Your task to perform on an android device: Go to Amazon Image 0: 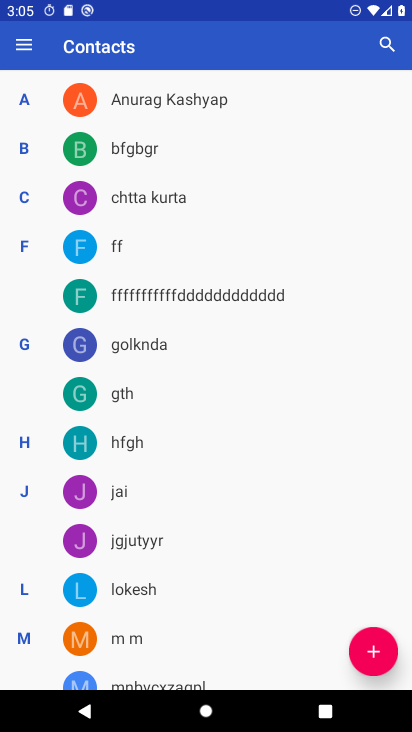
Step 0: press home button
Your task to perform on an android device: Go to Amazon Image 1: 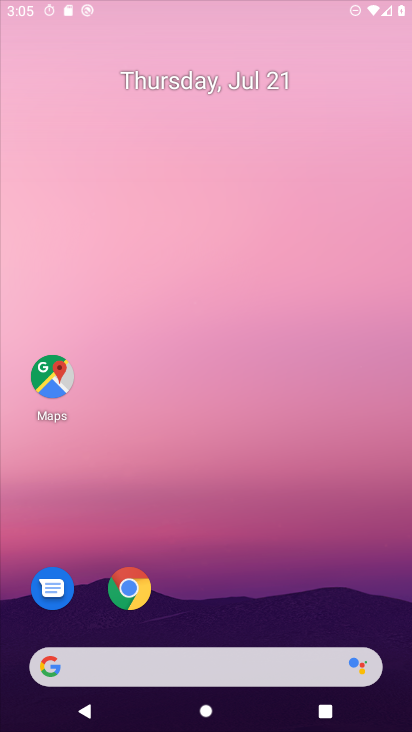
Step 1: drag from (198, 681) to (410, 257)
Your task to perform on an android device: Go to Amazon Image 2: 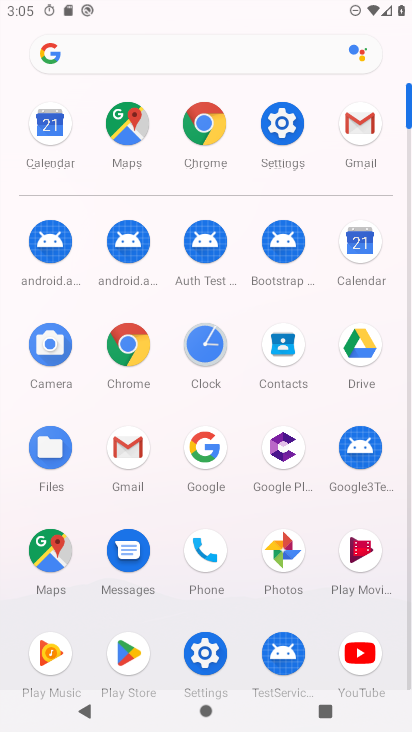
Step 2: click (124, 372)
Your task to perform on an android device: Go to Amazon Image 3: 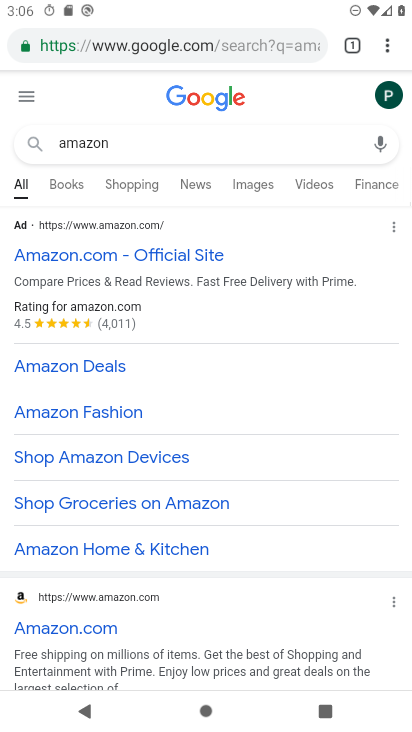
Step 3: click (235, 41)
Your task to perform on an android device: Go to Amazon Image 4: 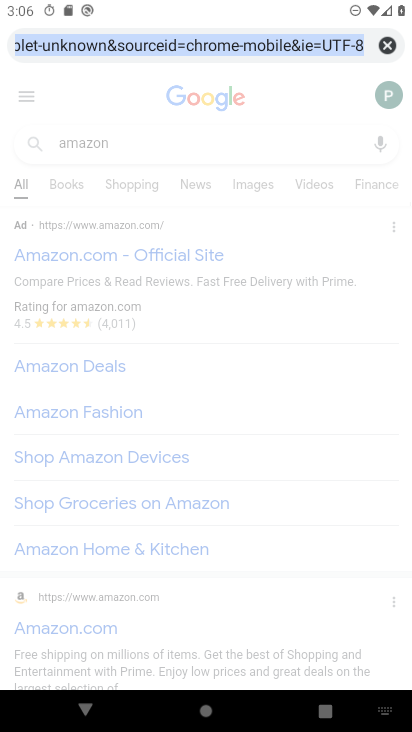
Step 4: type "amazon"
Your task to perform on an android device: Go to Amazon Image 5: 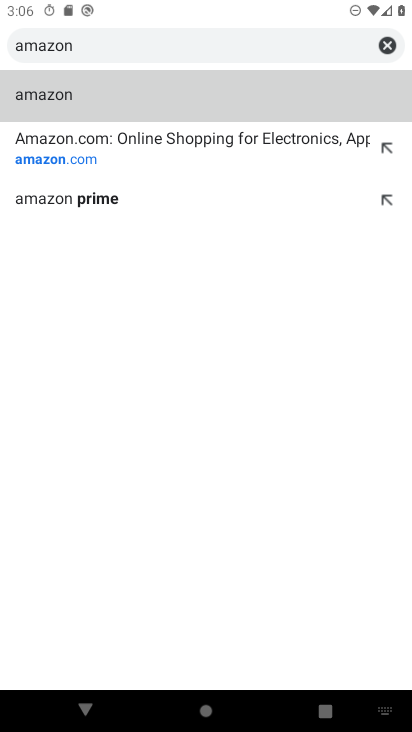
Step 5: click (131, 163)
Your task to perform on an android device: Go to Amazon Image 6: 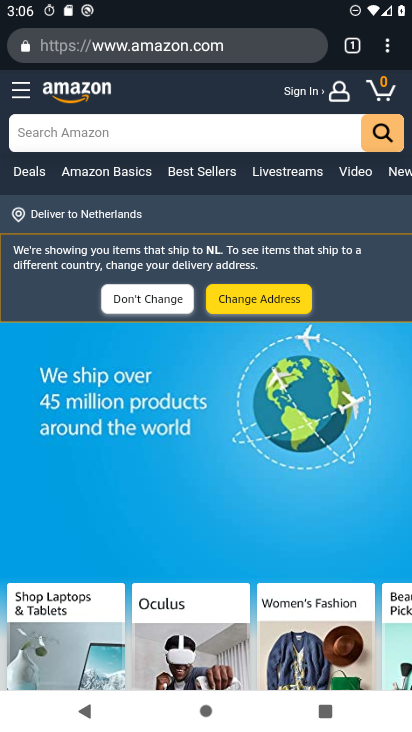
Step 6: task complete